Your task to perform on an android device: Clear the shopping cart on costco.com. Image 0: 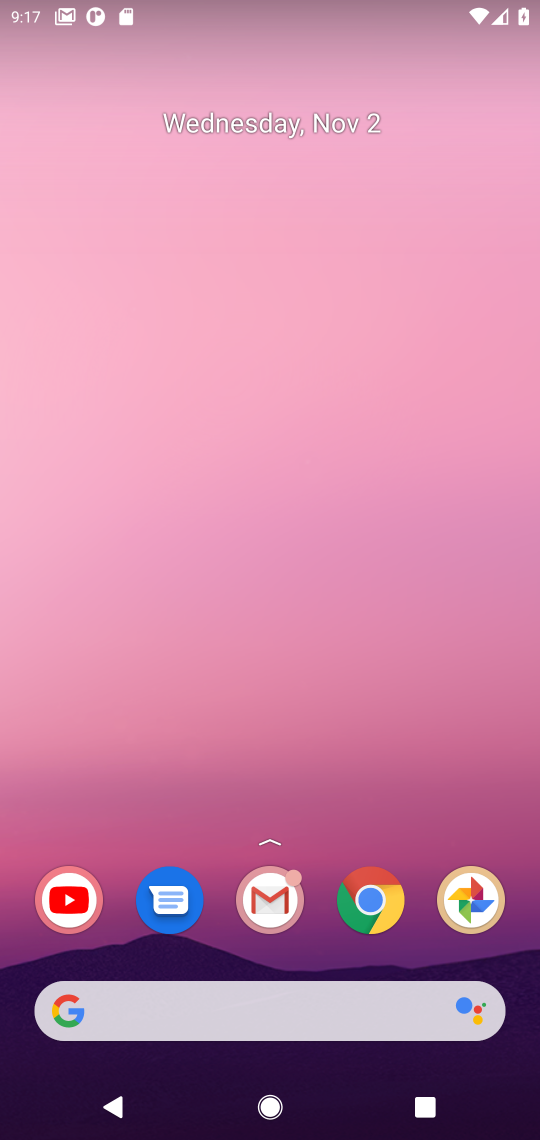
Step 0: click (374, 922)
Your task to perform on an android device: Clear the shopping cart on costco.com. Image 1: 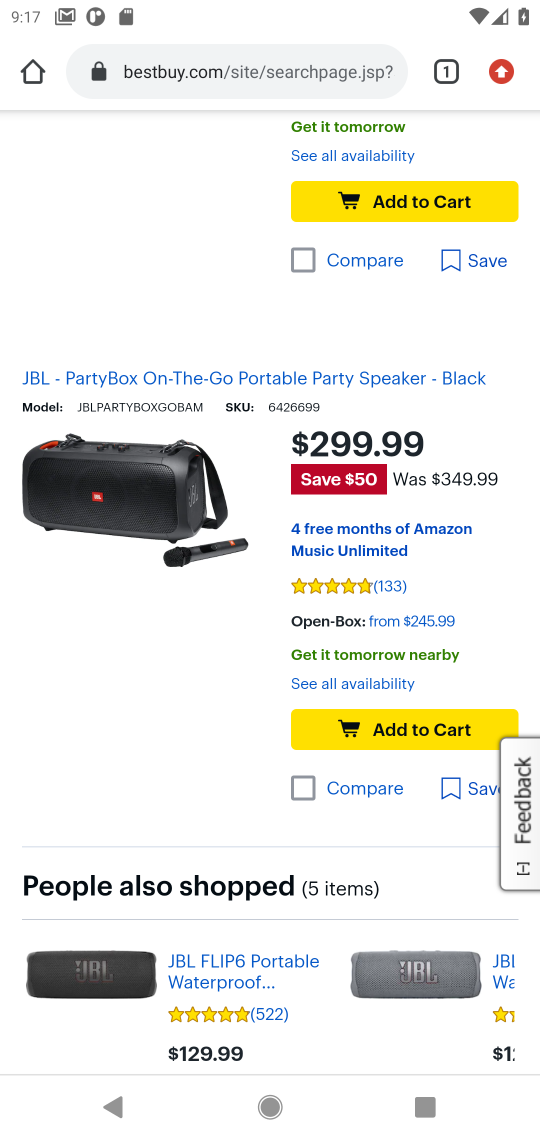
Step 1: click (153, 68)
Your task to perform on an android device: Clear the shopping cart on costco.com. Image 2: 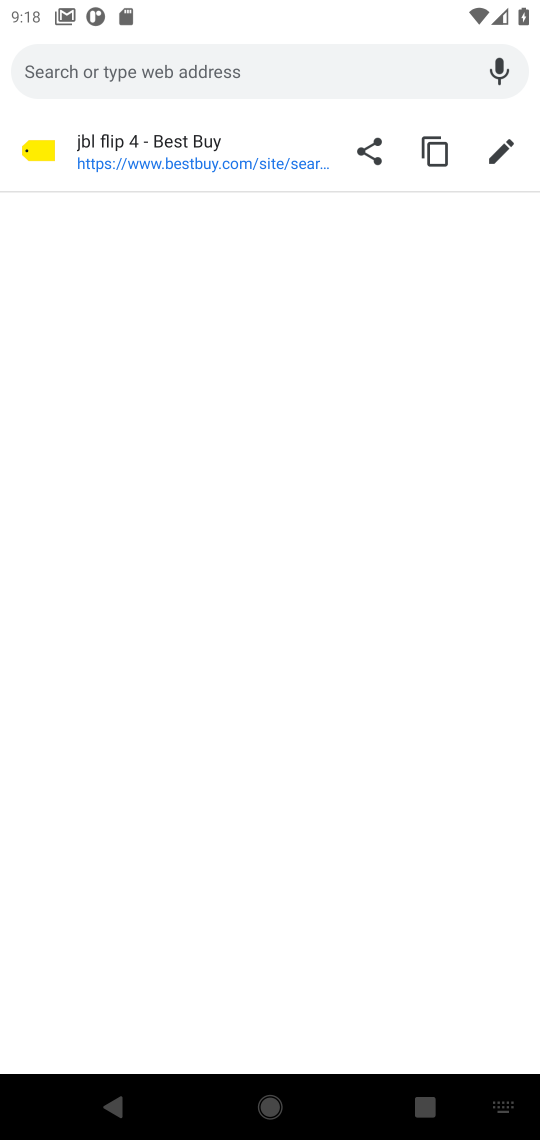
Step 2: type "costco"
Your task to perform on an android device: Clear the shopping cart on costco.com. Image 3: 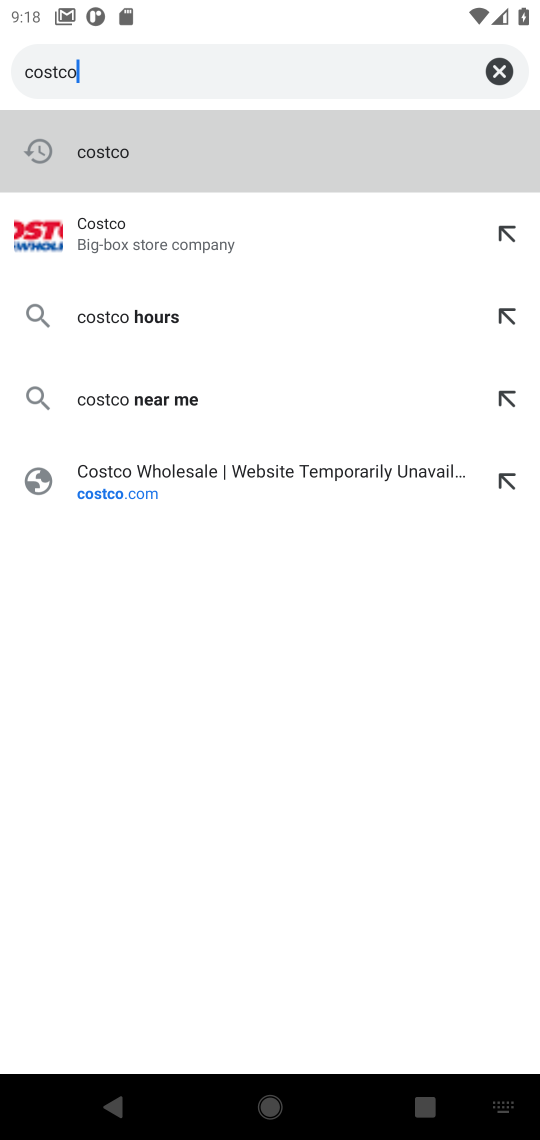
Step 3: click (156, 245)
Your task to perform on an android device: Clear the shopping cart on costco.com. Image 4: 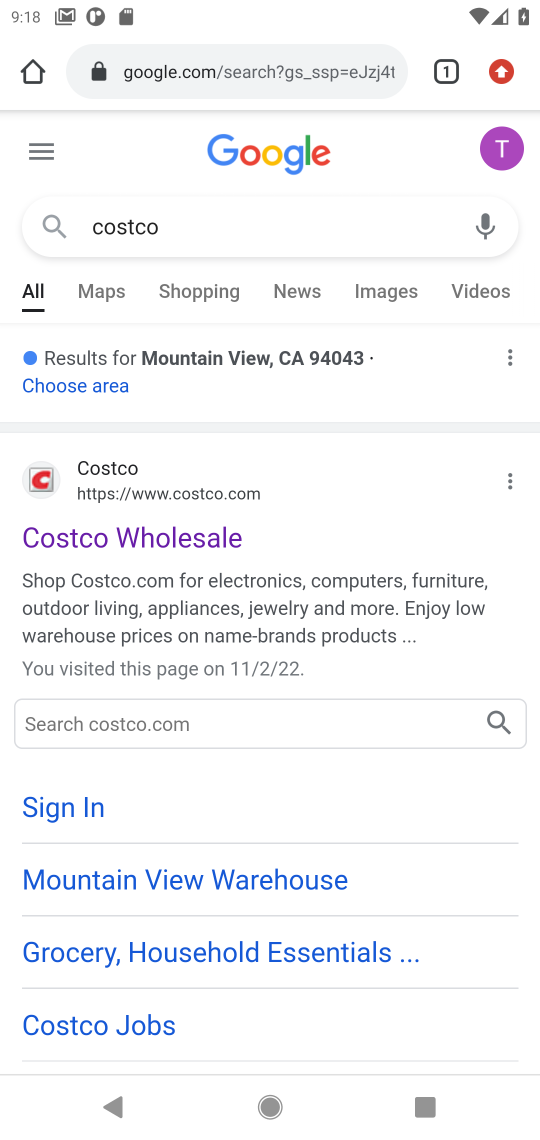
Step 4: click (159, 513)
Your task to perform on an android device: Clear the shopping cart on costco.com. Image 5: 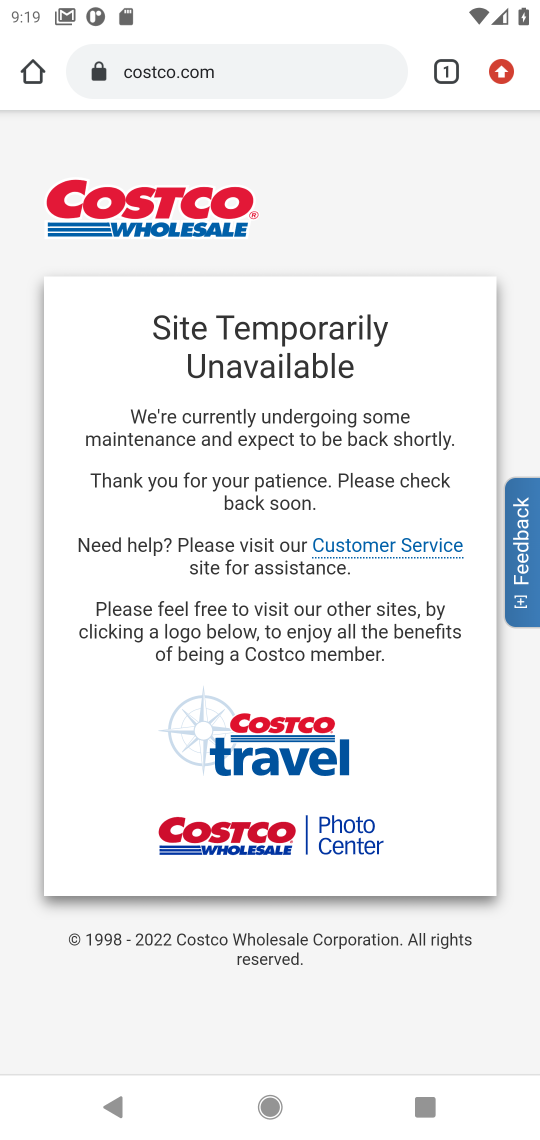
Step 5: task complete